Your task to perform on an android device: What's the weather today? Image 0: 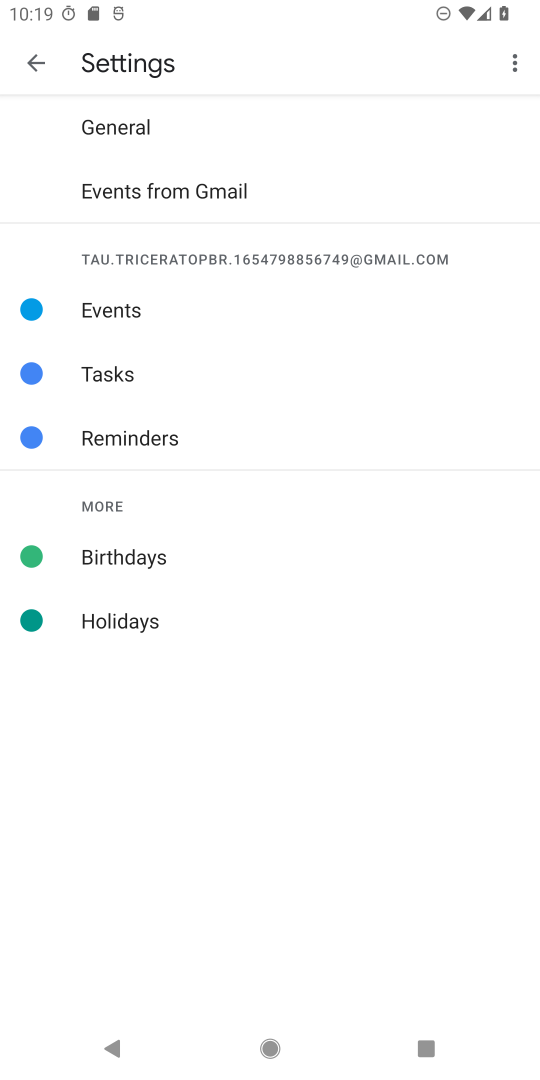
Step 0: press home button
Your task to perform on an android device: What's the weather today? Image 1: 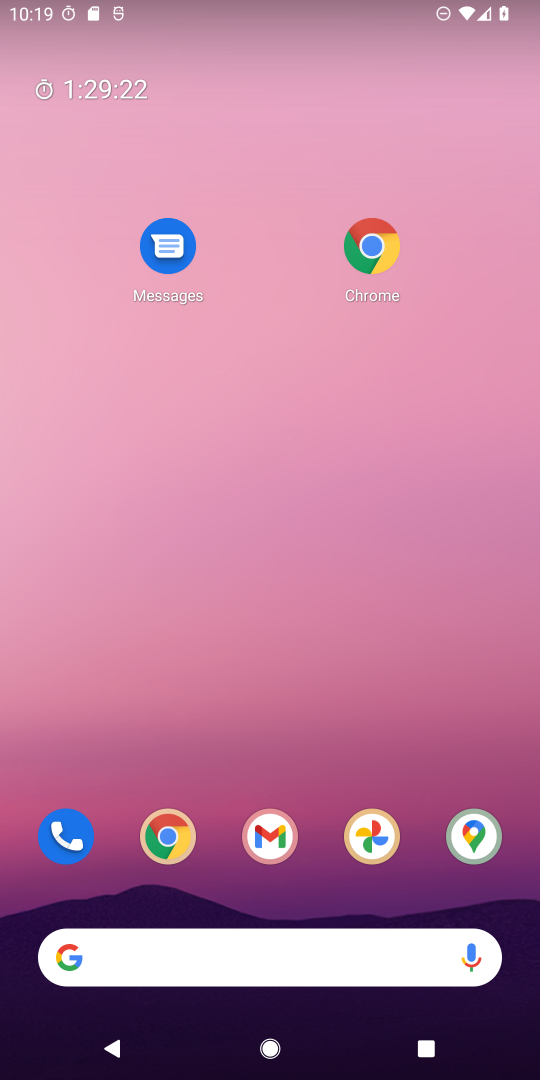
Step 1: drag from (159, 883) to (198, 264)
Your task to perform on an android device: What's the weather today? Image 2: 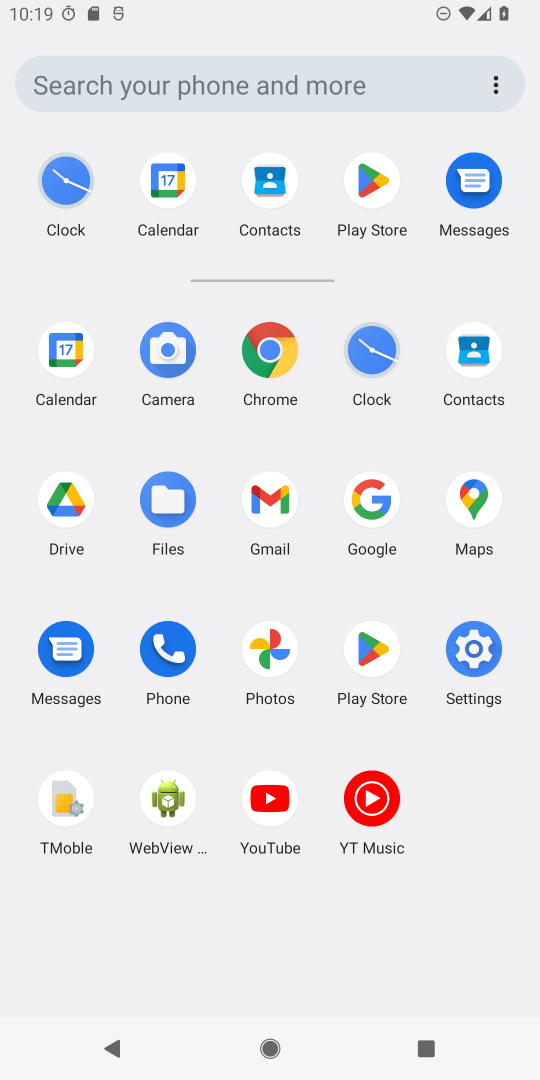
Step 2: click (268, 368)
Your task to perform on an android device: What's the weather today? Image 3: 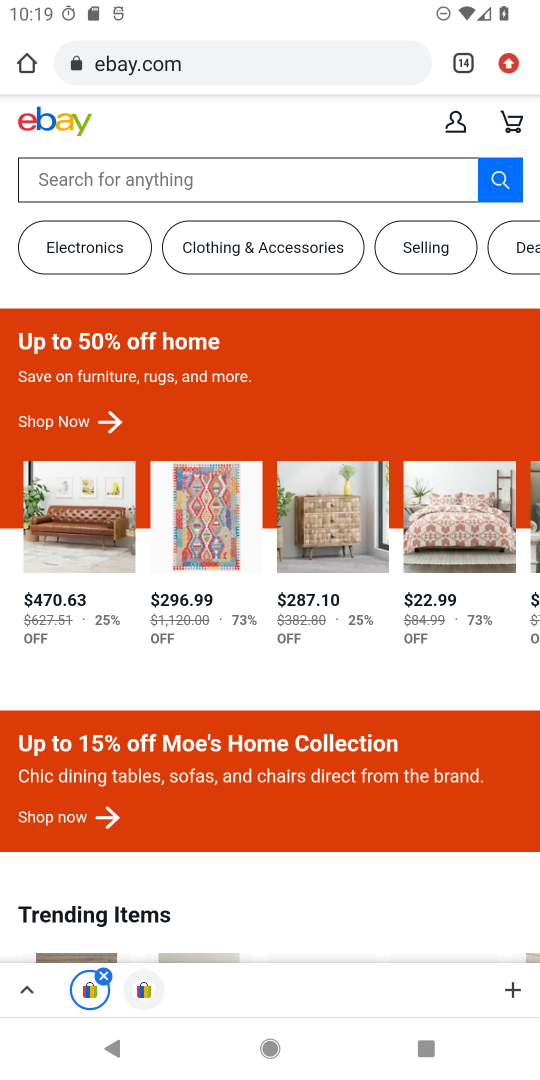
Step 3: click (513, 63)
Your task to perform on an android device: What's the weather today? Image 4: 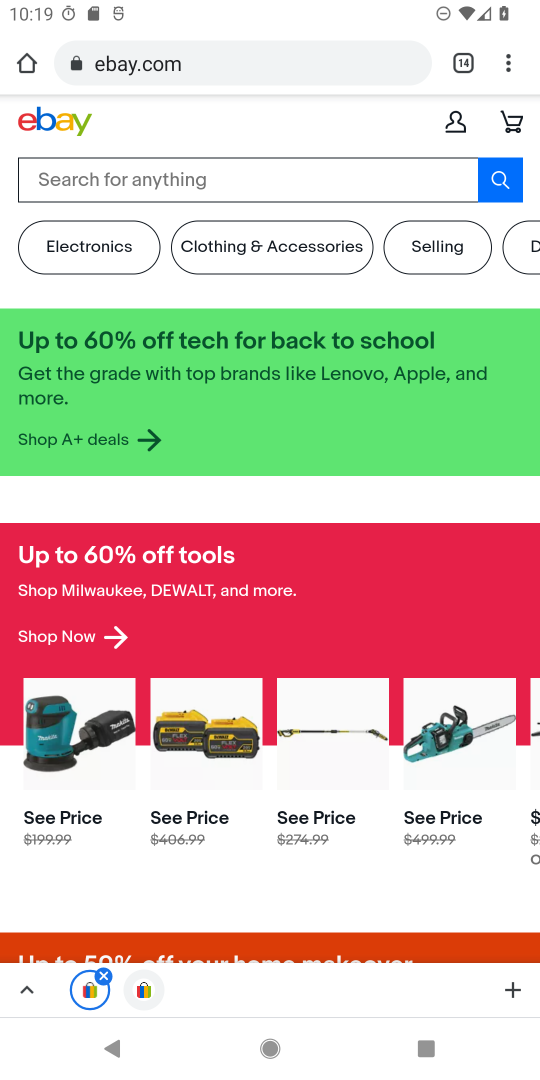
Step 4: click (508, 61)
Your task to perform on an android device: What's the weather today? Image 5: 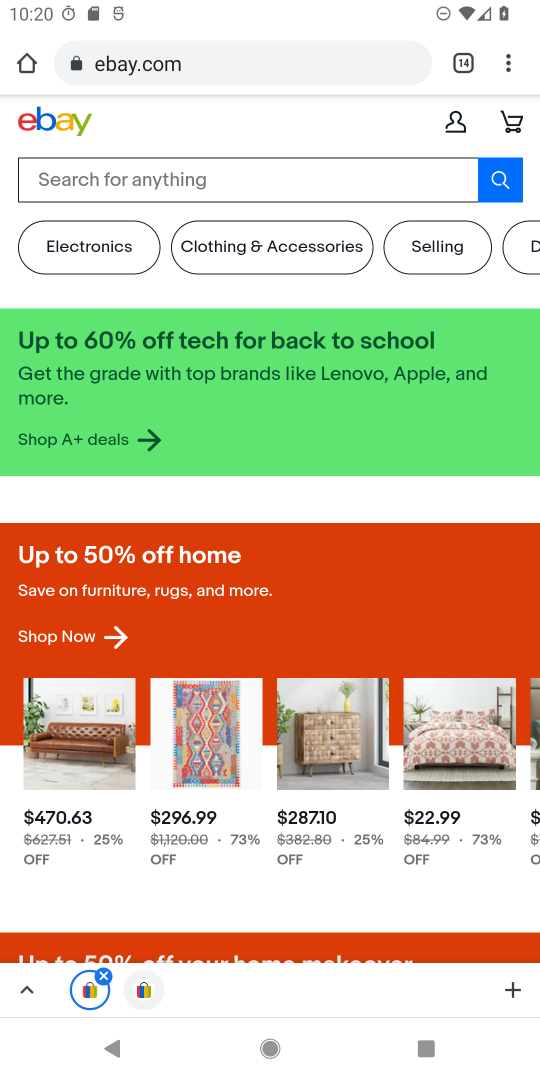
Step 5: click (505, 58)
Your task to perform on an android device: What's the weather today? Image 6: 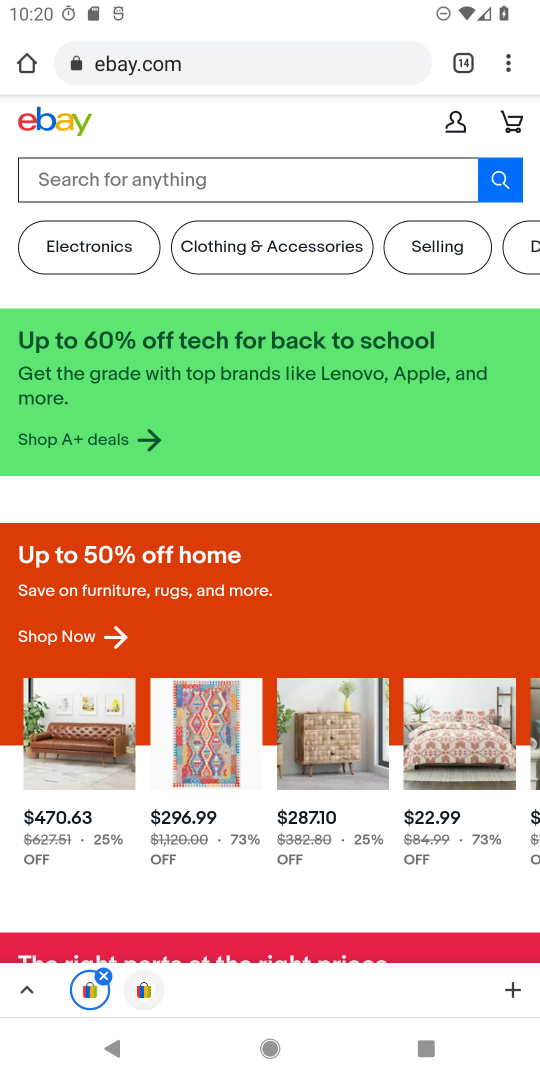
Step 6: click (499, 54)
Your task to perform on an android device: What's the weather today? Image 7: 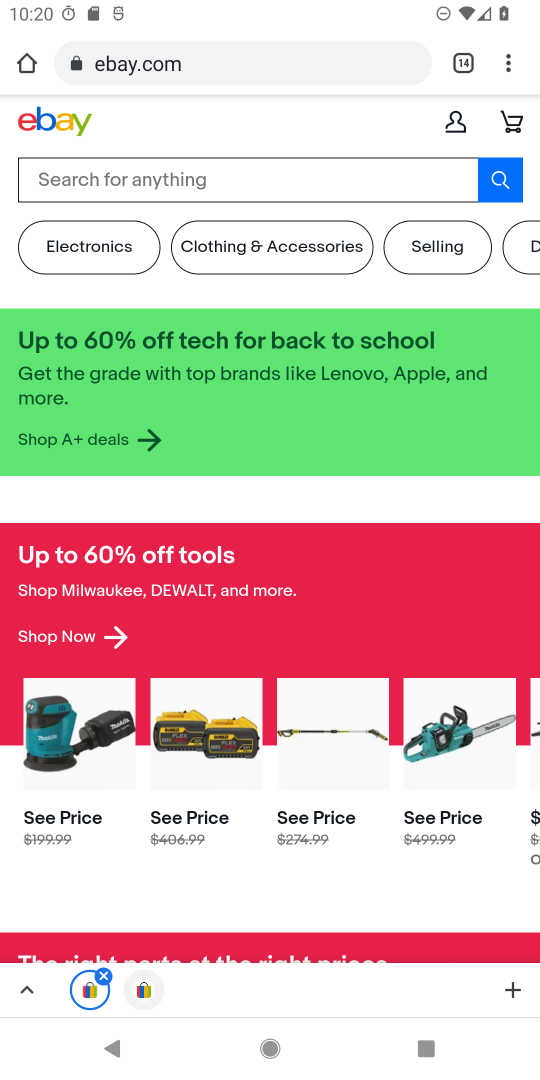
Step 7: click (499, 54)
Your task to perform on an android device: What's the weather today? Image 8: 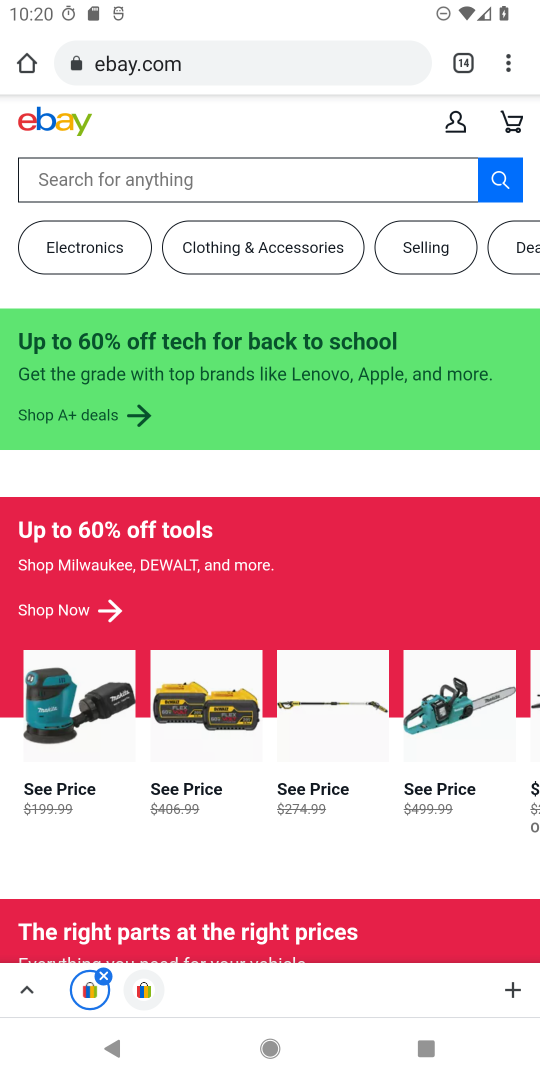
Step 8: click (499, 62)
Your task to perform on an android device: What's the weather today? Image 9: 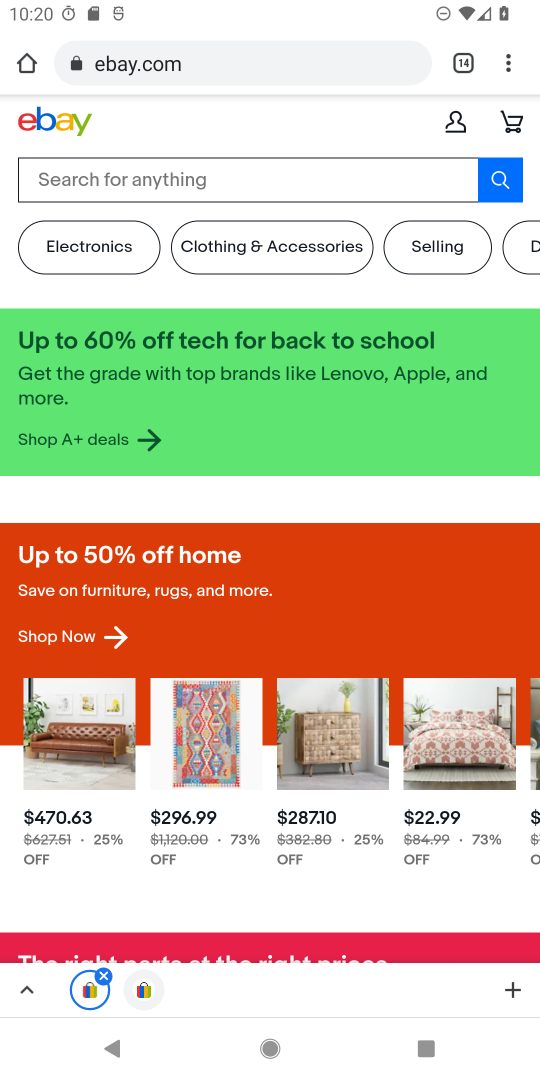
Step 9: click (499, 62)
Your task to perform on an android device: What's the weather today? Image 10: 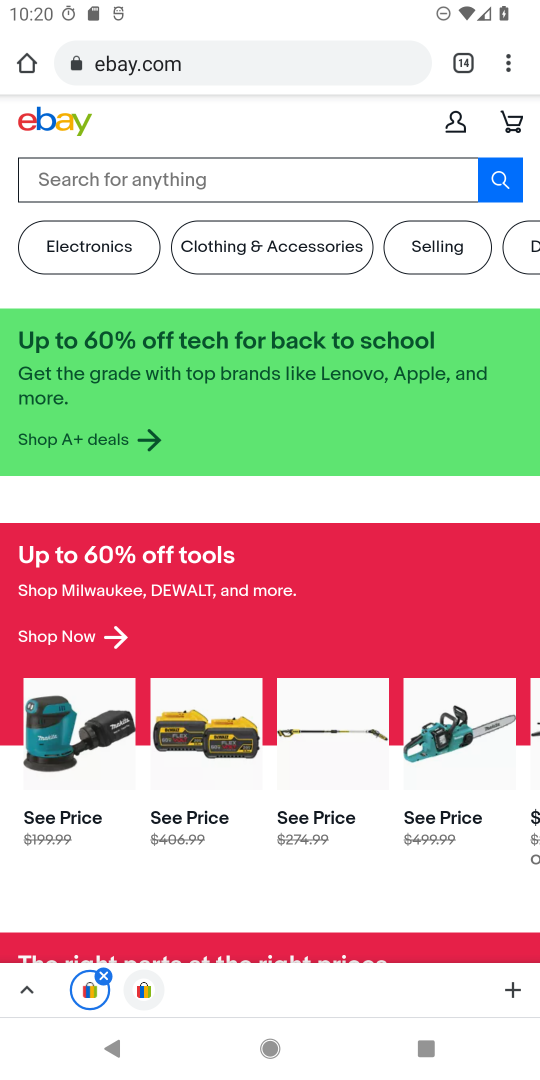
Step 10: click (499, 62)
Your task to perform on an android device: What's the weather today? Image 11: 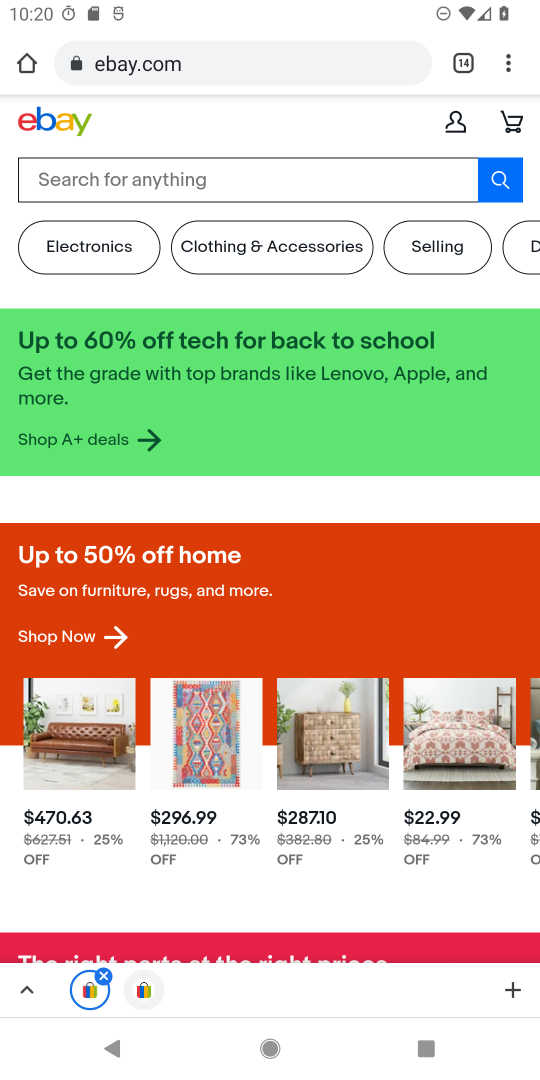
Step 11: click (499, 62)
Your task to perform on an android device: What's the weather today? Image 12: 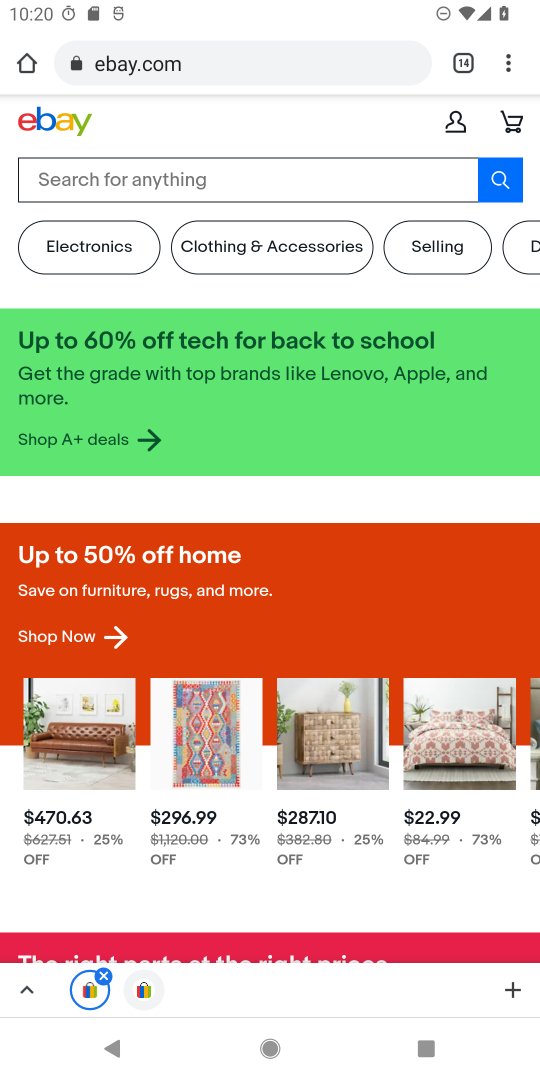
Step 12: click (499, 62)
Your task to perform on an android device: What's the weather today? Image 13: 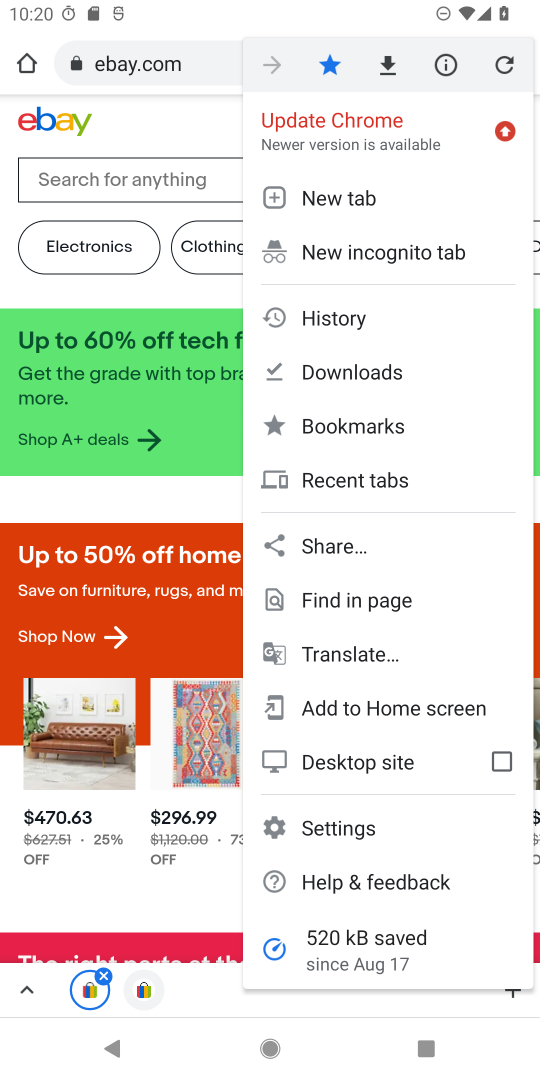
Step 13: click (360, 192)
Your task to perform on an android device: What's the weather today? Image 14: 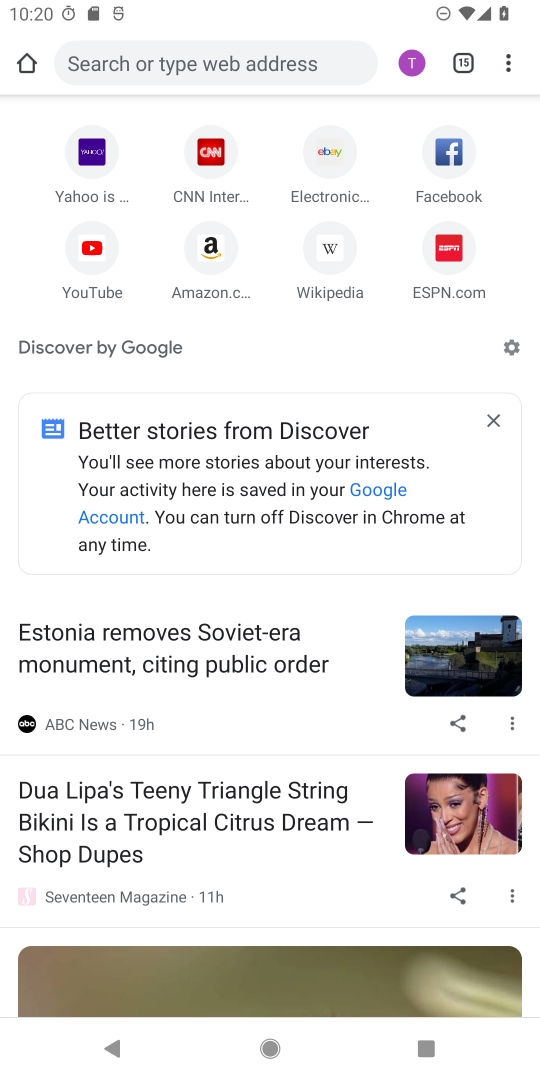
Step 14: click (272, 60)
Your task to perform on an android device: What's the weather today? Image 15: 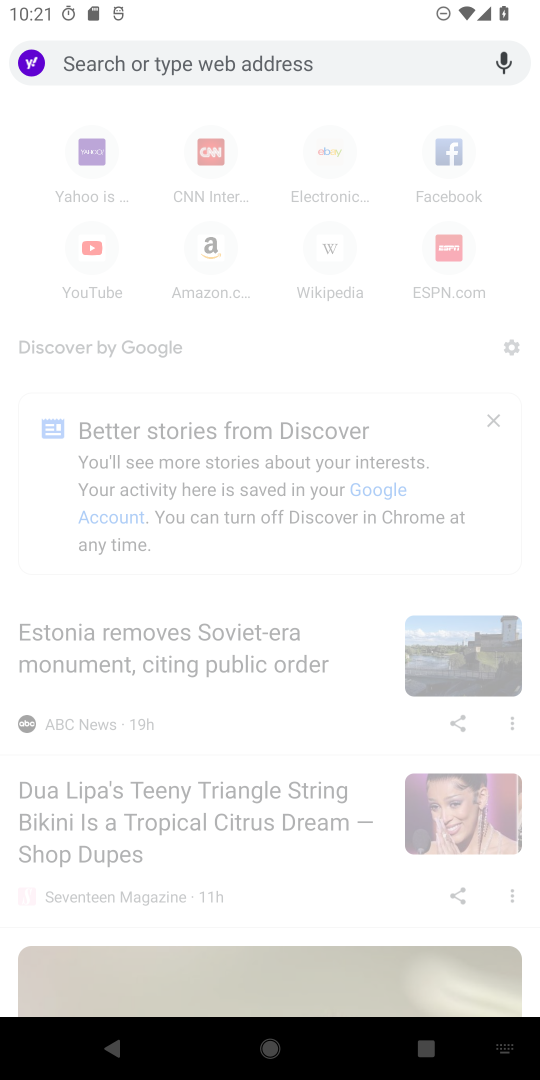
Step 15: click (276, 52)
Your task to perform on an android device: What's the weather today? Image 16: 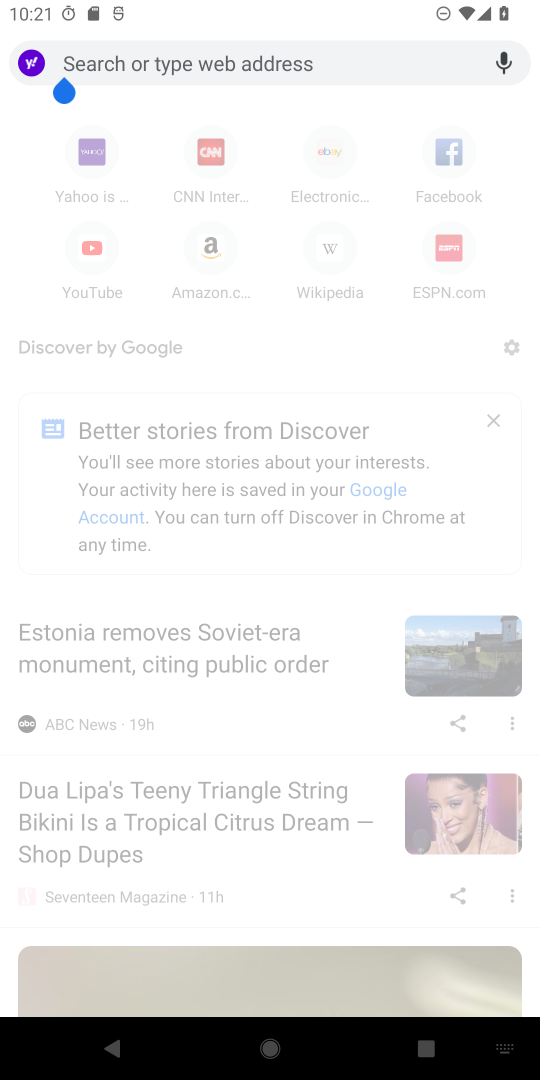
Step 16: type "What's the weather today? "
Your task to perform on an android device: What's the weather today? Image 17: 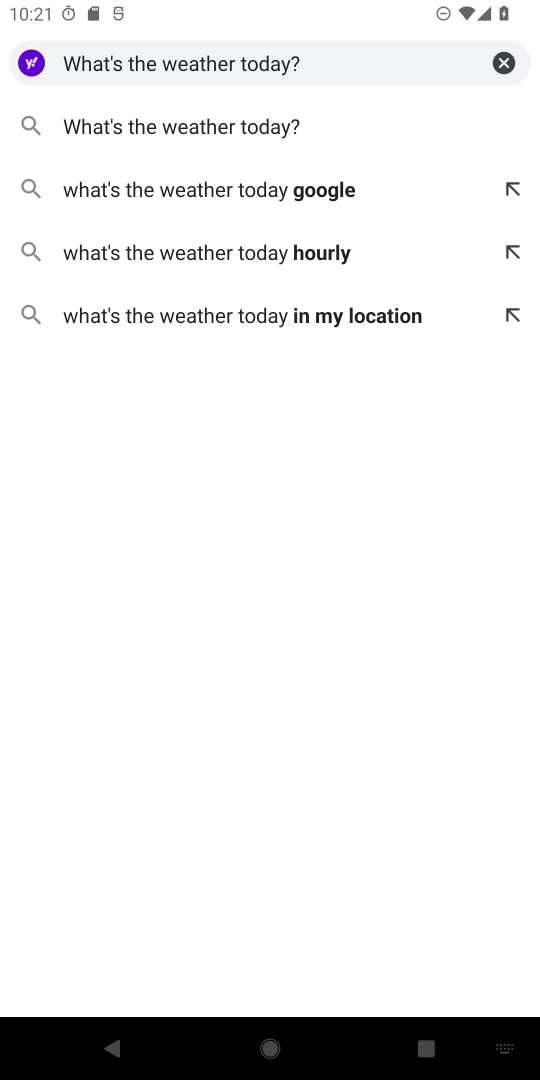
Step 17: click (279, 131)
Your task to perform on an android device: What's the weather today? Image 18: 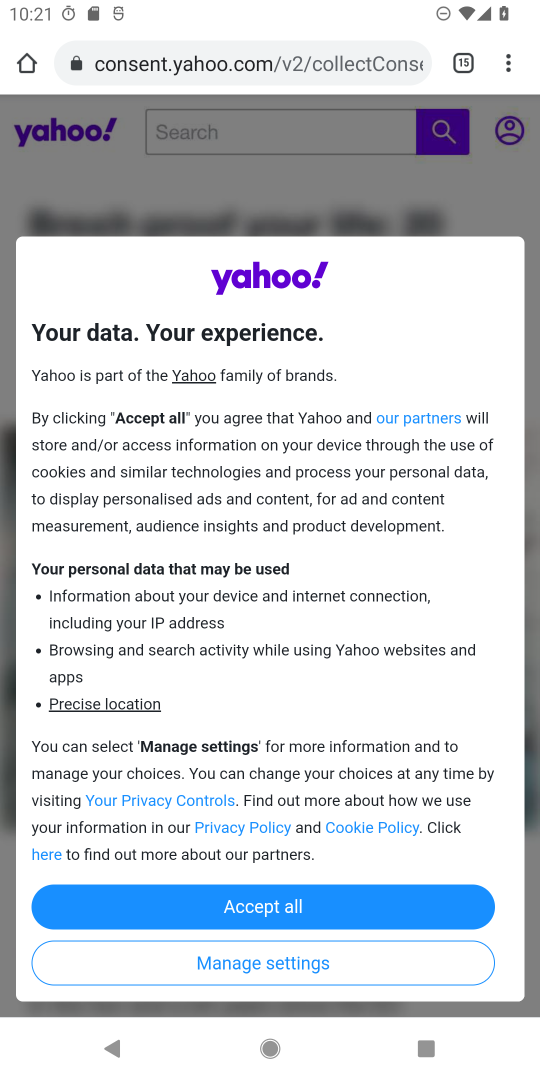
Step 18: task complete